Your task to perform on an android device: show emergency info Image 0: 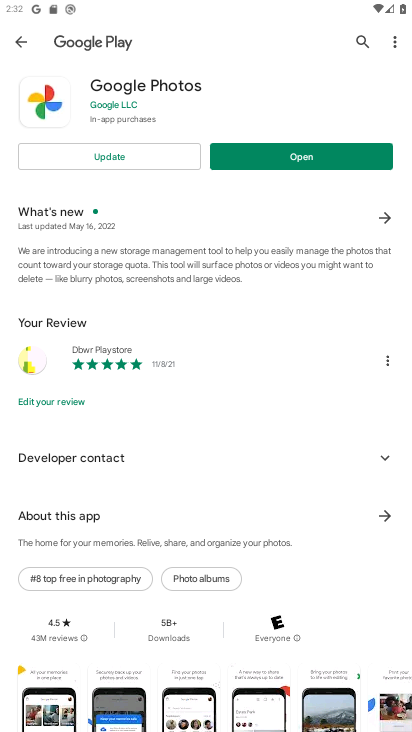
Step 0: press home button
Your task to perform on an android device: show emergency info Image 1: 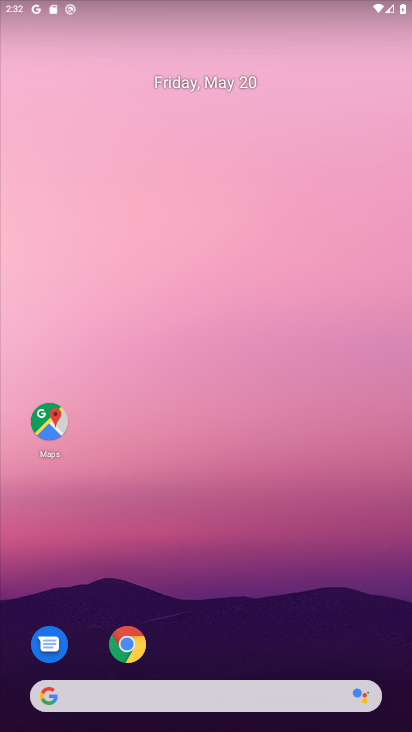
Step 1: drag from (250, 625) to (211, 132)
Your task to perform on an android device: show emergency info Image 2: 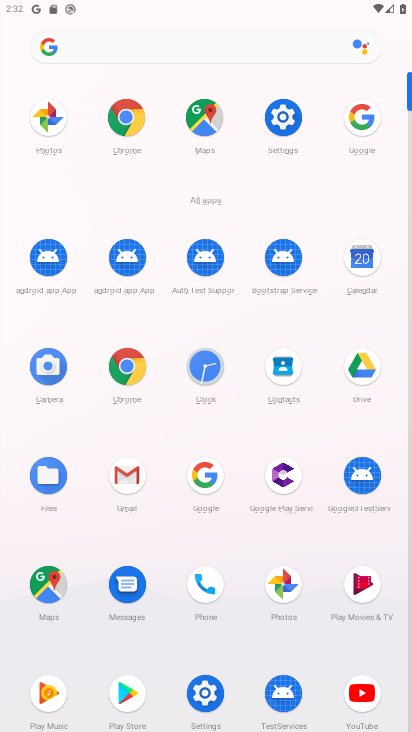
Step 2: click (277, 108)
Your task to perform on an android device: show emergency info Image 3: 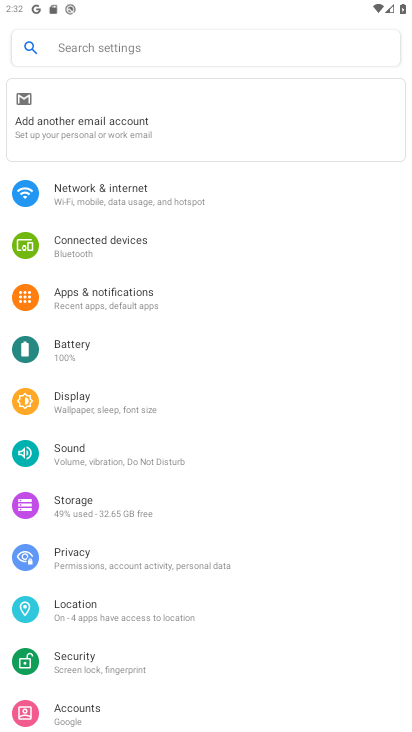
Step 3: click (131, 51)
Your task to perform on an android device: show emergency info Image 4: 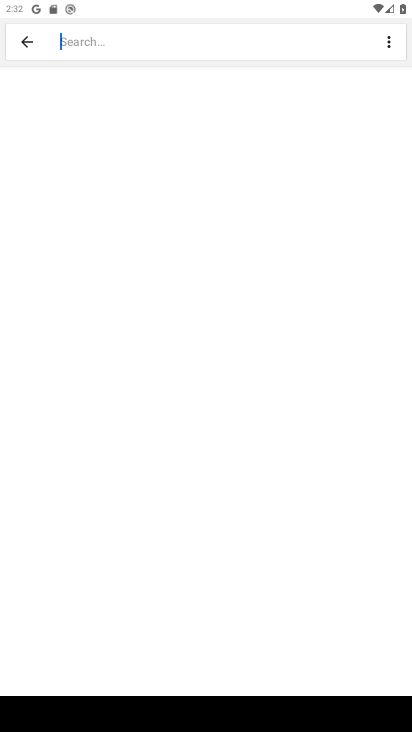
Step 4: type "emergency info"
Your task to perform on an android device: show emergency info Image 5: 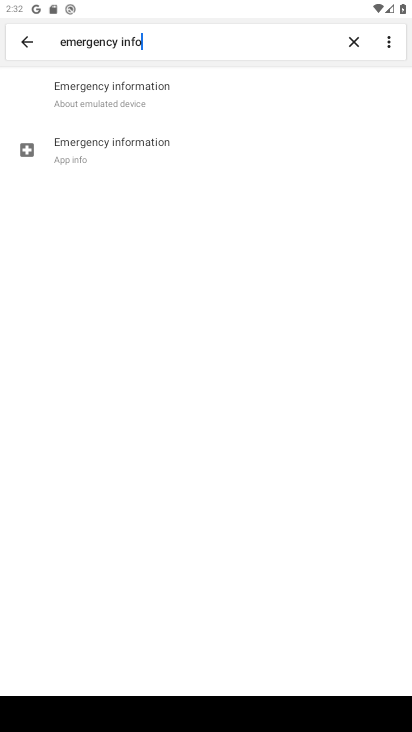
Step 5: click (117, 141)
Your task to perform on an android device: show emergency info Image 6: 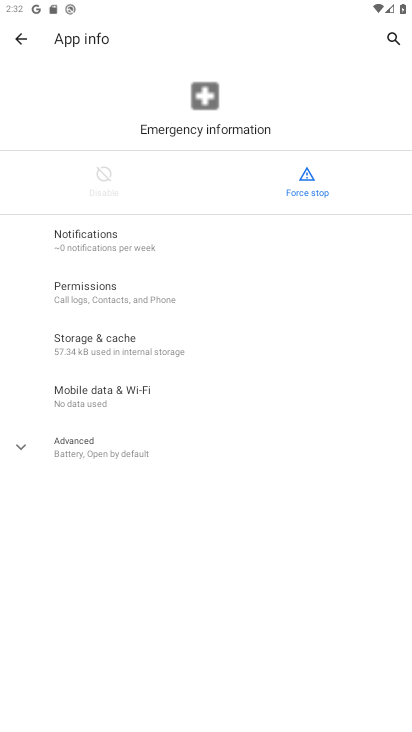
Step 6: task complete